Your task to perform on an android device: Go to eBay Image 0: 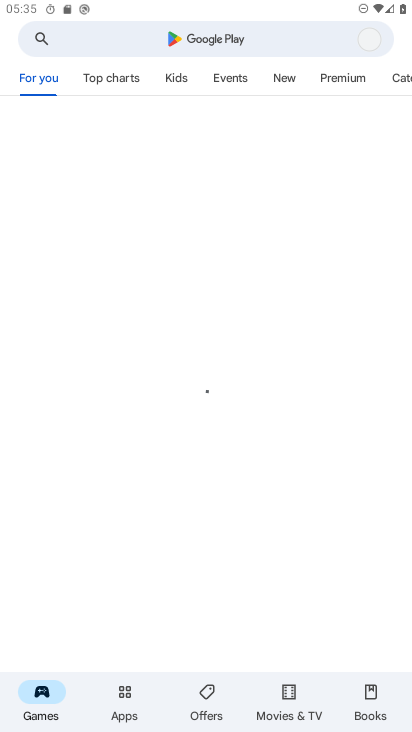
Step 0: press home button
Your task to perform on an android device: Go to eBay Image 1: 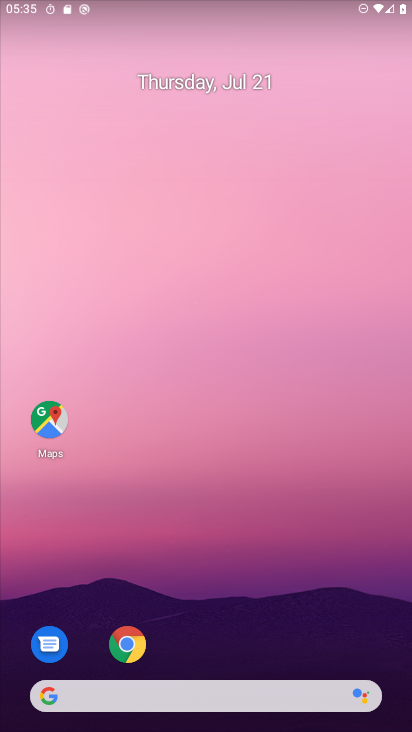
Step 1: click (132, 644)
Your task to perform on an android device: Go to eBay Image 2: 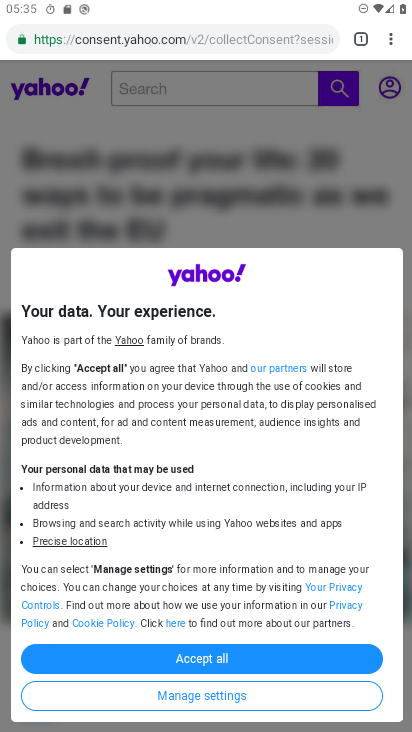
Step 2: click (241, 37)
Your task to perform on an android device: Go to eBay Image 3: 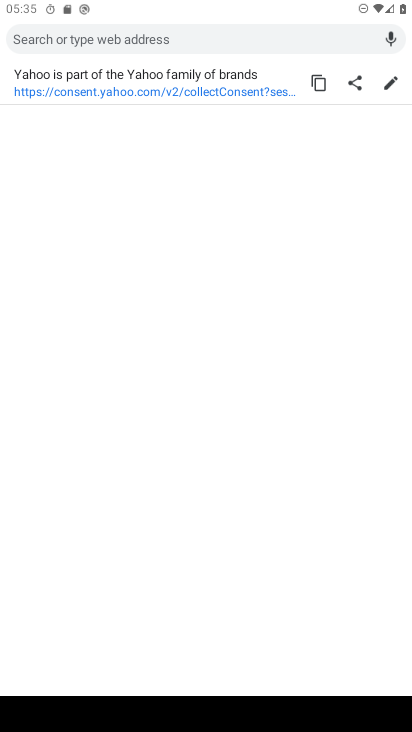
Step 3: type "www.ebay.com"
Your task to perform on an android device: Go to eBay Image 4: 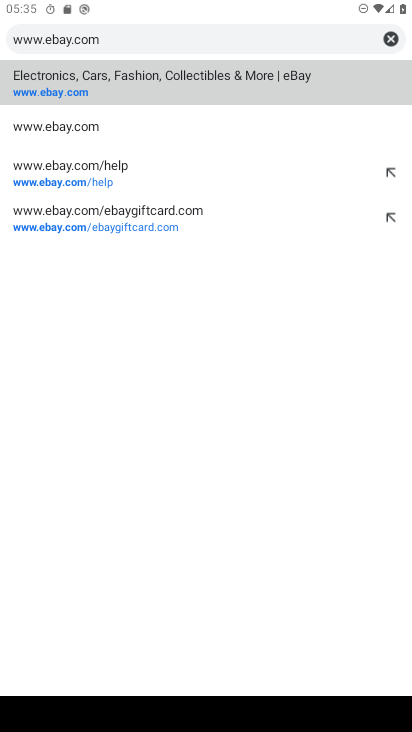
Step 4: click (42, 85)
Your task to perform on an android device: Go to eBay Image 5: 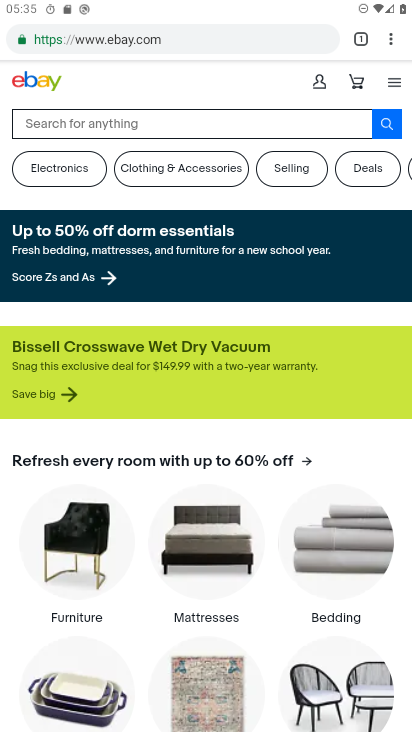
Step 5: task complete